Your task to perform on an android device: open device folders in google photos Image 0: 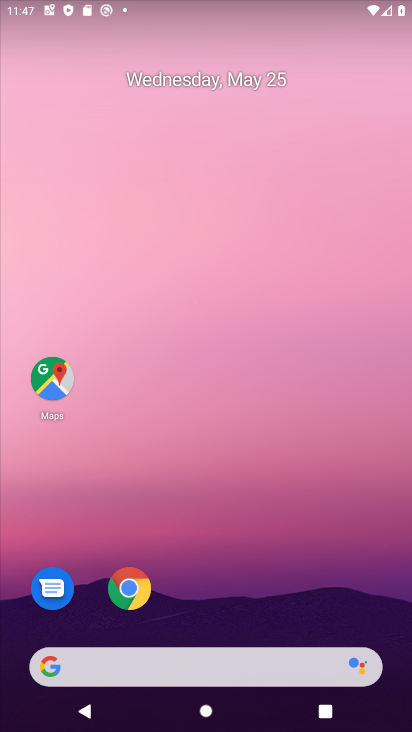
Step 0: drag from (204, 550) to (197, 44)
Your task to perform on an android device: open device folders in google photos Image 1: 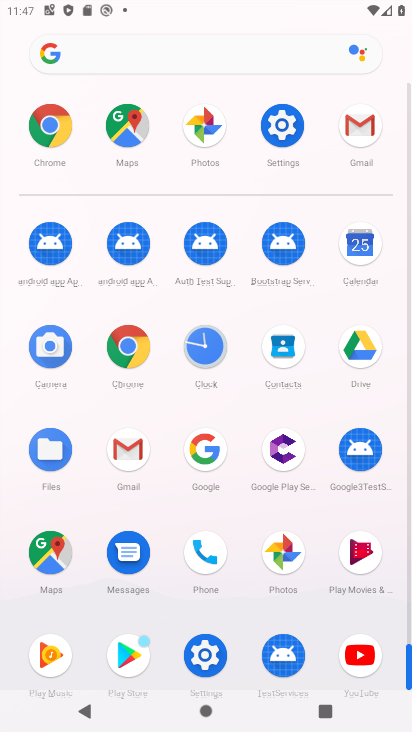
Step 1: drag from (14, 585) to (13, 223)
Your task to perform on an android device: open device folders in google photos Image 2: 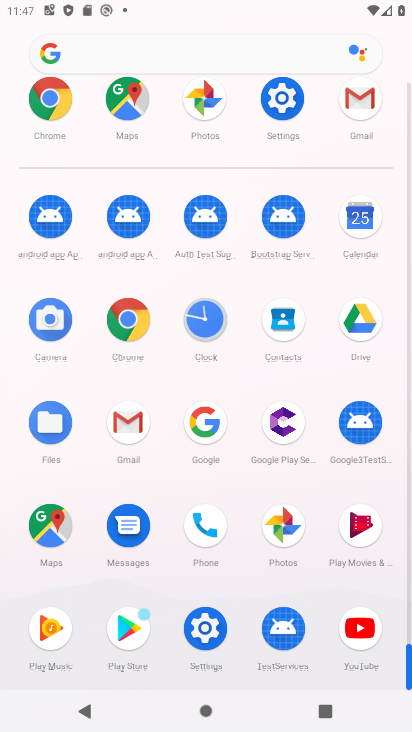
Step 2: drag from (9, 615) to (7, 293)
Your task to perform on an android device: open device folders in google photos Image 3: 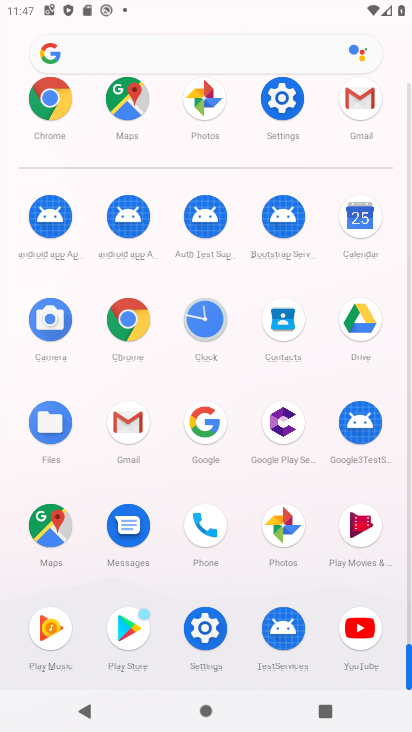
Step 3: click (281, 523)
Your task to perform on an android device: open device folders in google photos Image 4: 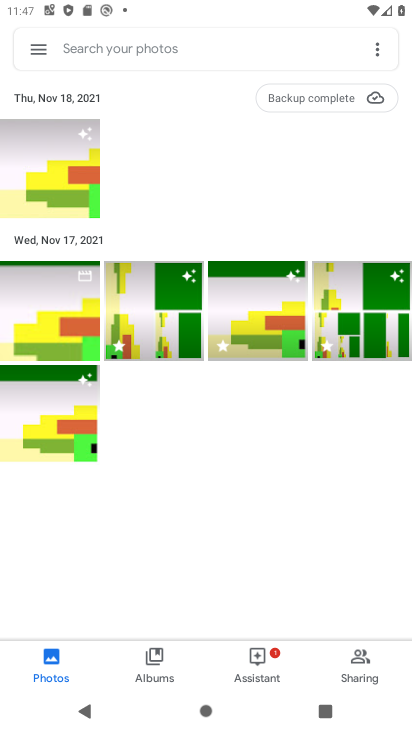
Step 4: click (25, 36)
Your task to perform on an android device: open device folders in google photos Image 5: 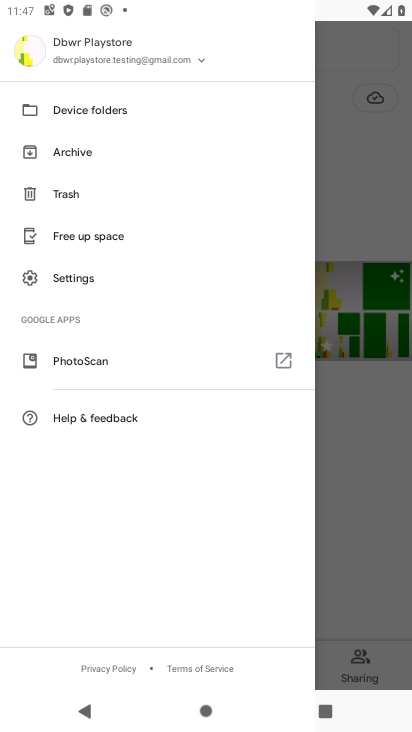
Step 5: click (77, 117)
Your task to perform on an android device: open device folders in google photos Image 6: 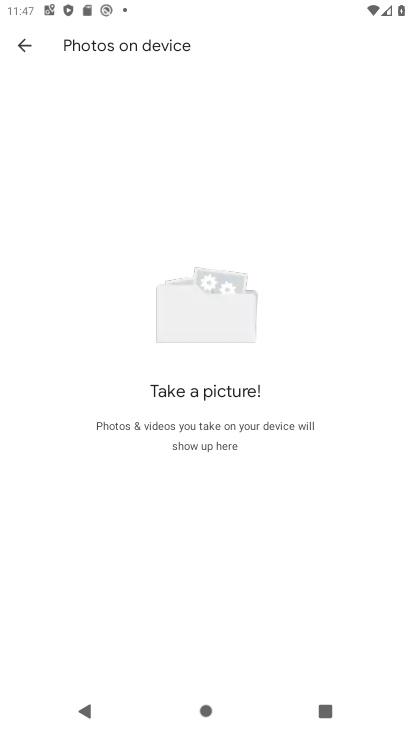
Step 6: task complete